Your task to perform on an android device: See recent photos Image 0: 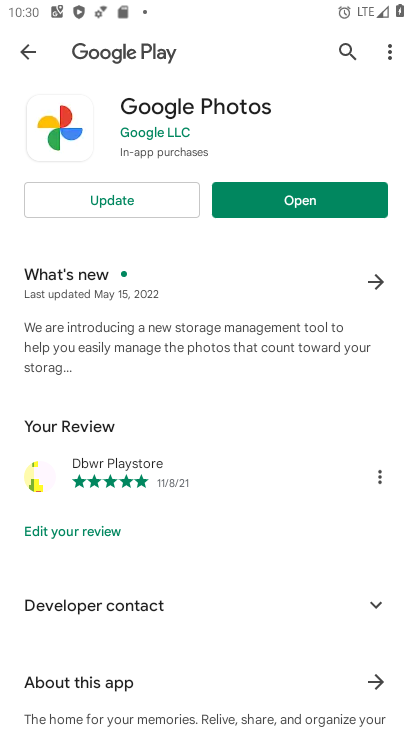
Step 0: press home button
Your task to perform on an android device: See recent photos Image 1: 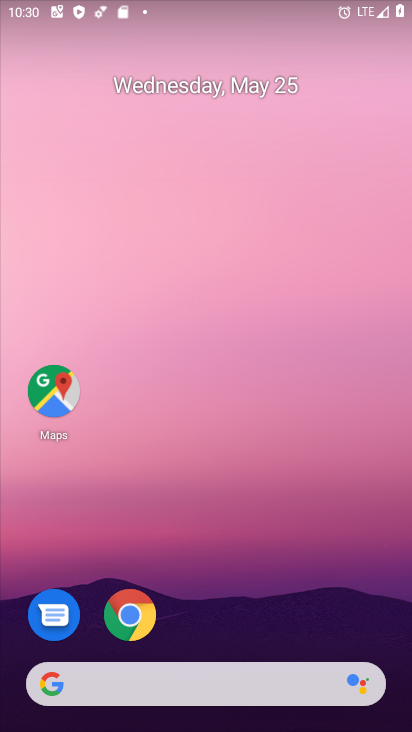
Step 1: drag from (261, 540) to (275, 69)
Your task to perform on an android device: See recent photos Image 2: 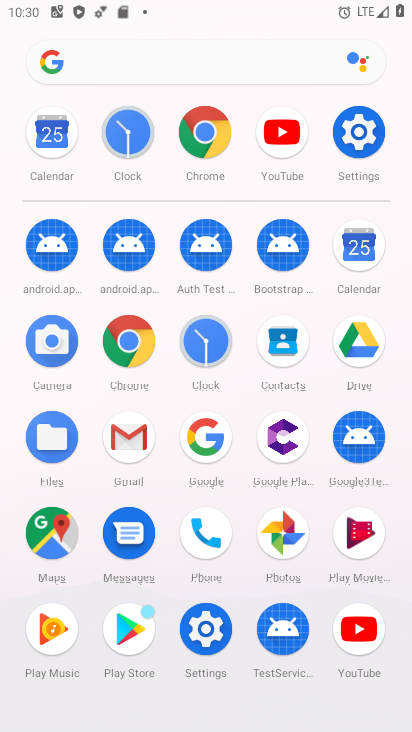
Step 2: click (274, 521)
Your task to perform on an android device: See recent photos Image 3: 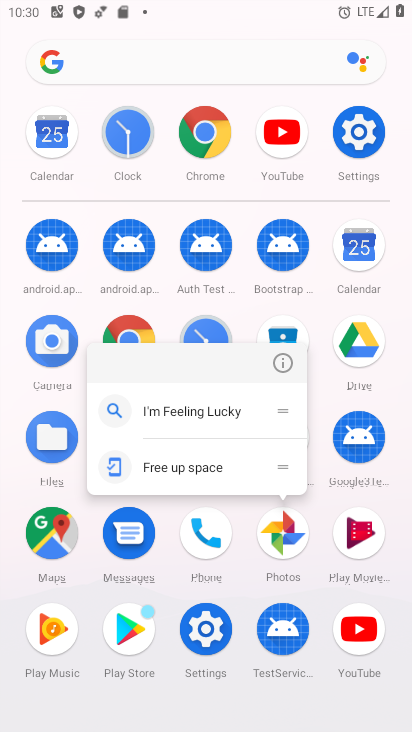
Step 3: click (284, 531)
Your task to perform on an android device: See recent photos Image 4: 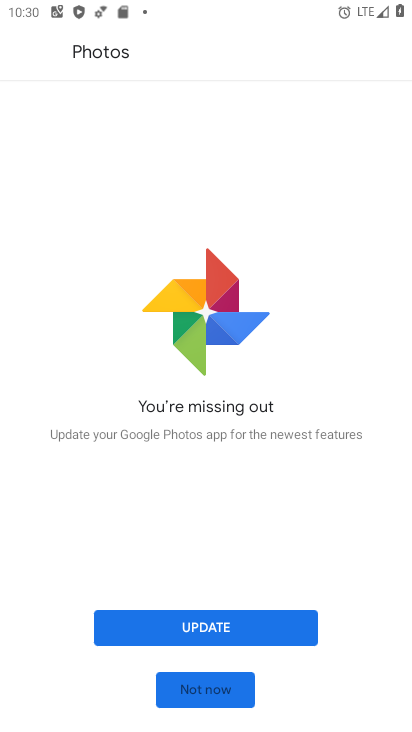
Step 4: click (235, 686)
Your task to perform on an android device: See recent photos Image 5: 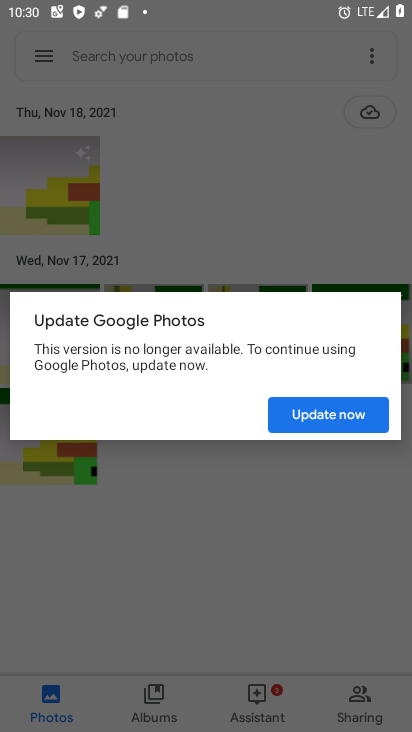
Step 5: click (318, 403)
Your task to perform on an android device: See recent photos Image 6: 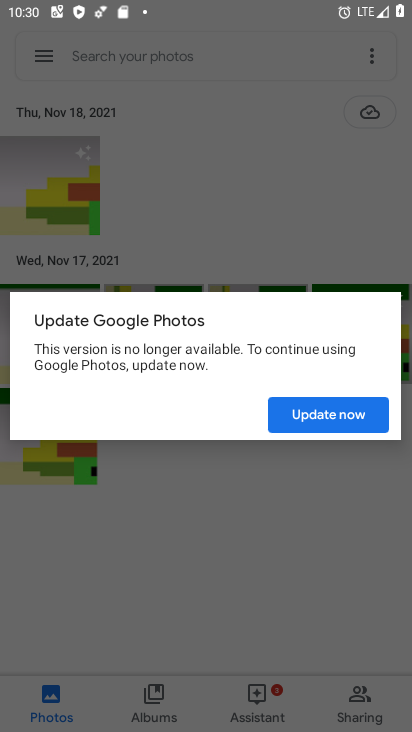
Step 6: click (329, 417)
Your task to perform on an android device: See recent photos Image 7: 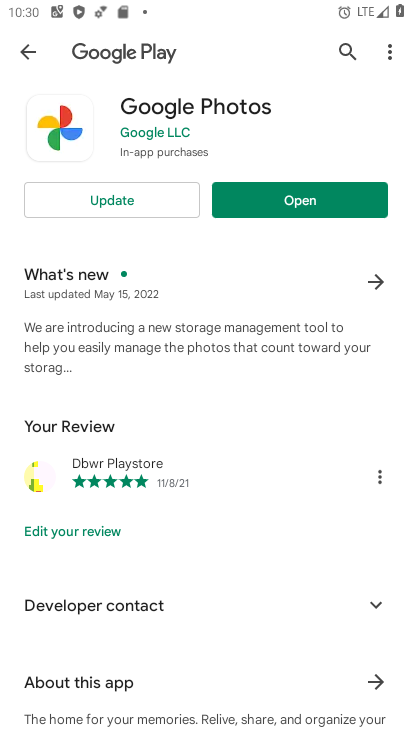
Step 7: click (352, 198)
Your task to perform on an android device: See recent photos Image 8: 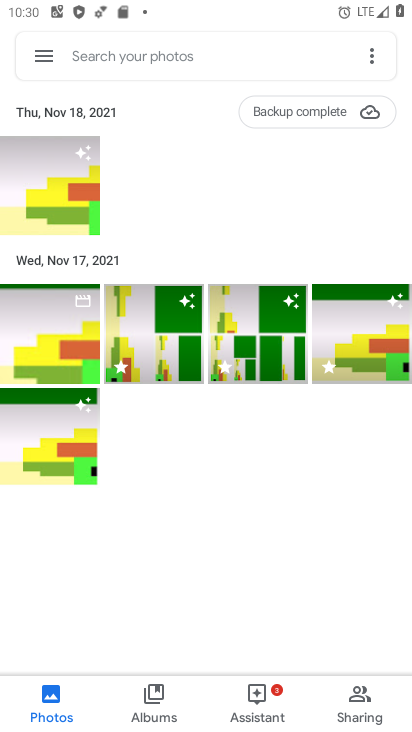
Step 8: click (46, 695)
Your task to perform on an android device: See recent photos Image 9: 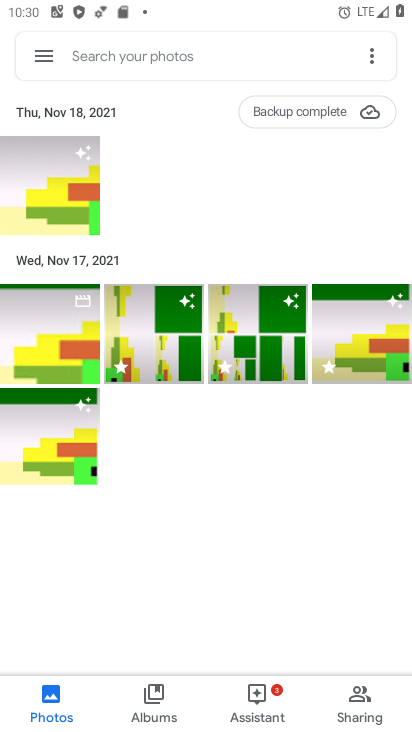
Step 9: task complete